Your task to perform on an android device: Search for seafood restaurants on Google Maps Image 0: 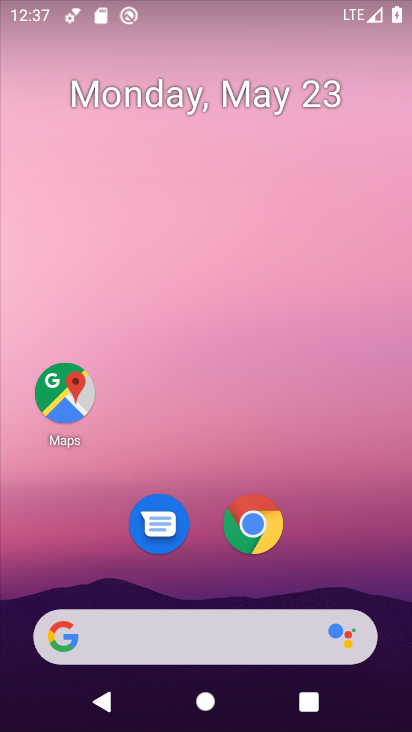
Step 0: click (61, 386)
Your task to perform on an android device: Search for seafood restaurants on Google Maps Image 1: 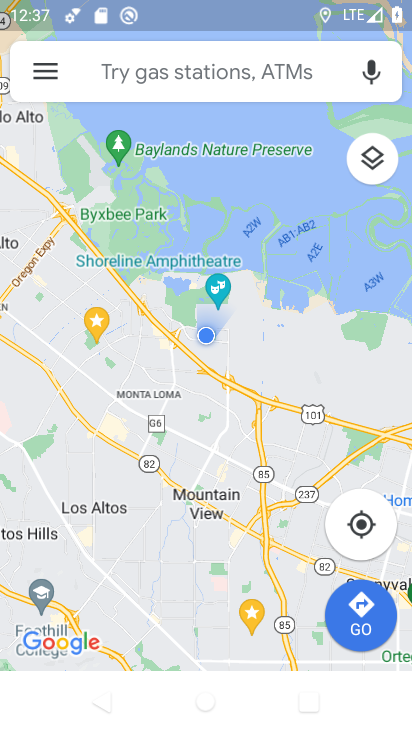
Step 1: click (194, 67)
Your task to perform on an android device: Search for seafood restaurants on Google Maps Image 2: 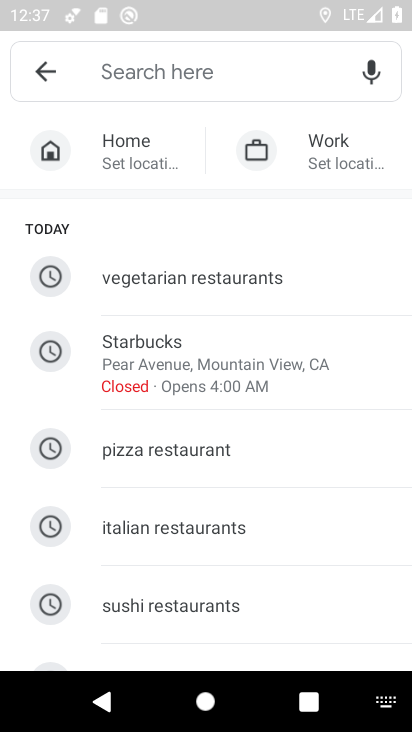
Step 2: drag from (238, 445) to (272, 232)
Your task to perform on an android device: Search for seafood restaurants on Google Maps Image 3: 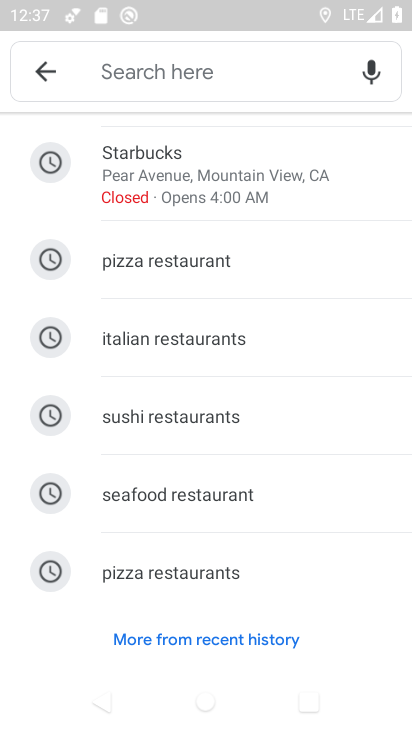
Step 3: click (231, 482)
Your task to perform on an android device: Search for seafood restaurants on Google Maps Image 4: 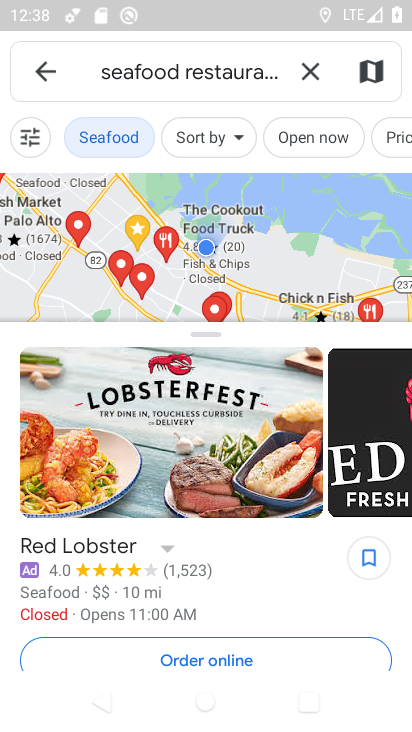
Step 4: task complete